Your task to perform on an android device: turn off wifi Image 0: 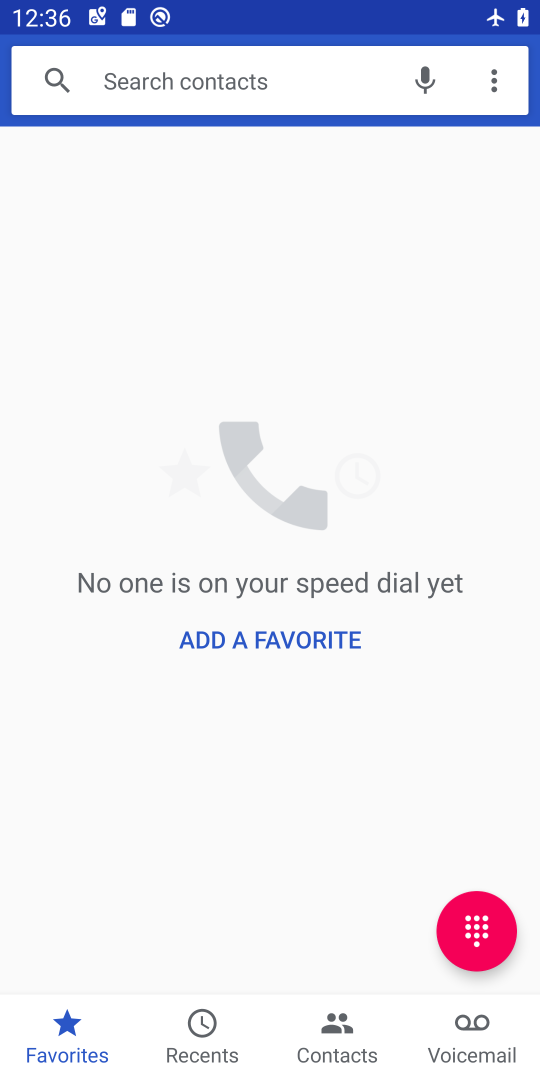
Step 0: press home button
Your task to perform on an android device: turn off wifi Image 1: 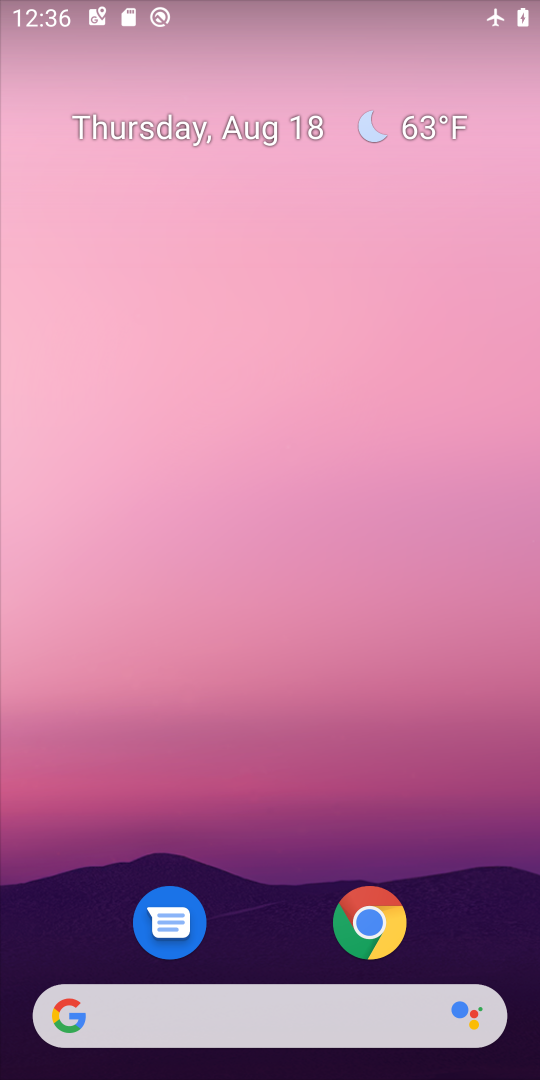
Step 1: drag from (281, 859) to (309, 238)
Your task to perform on an android device: turn off wifi Image 2: 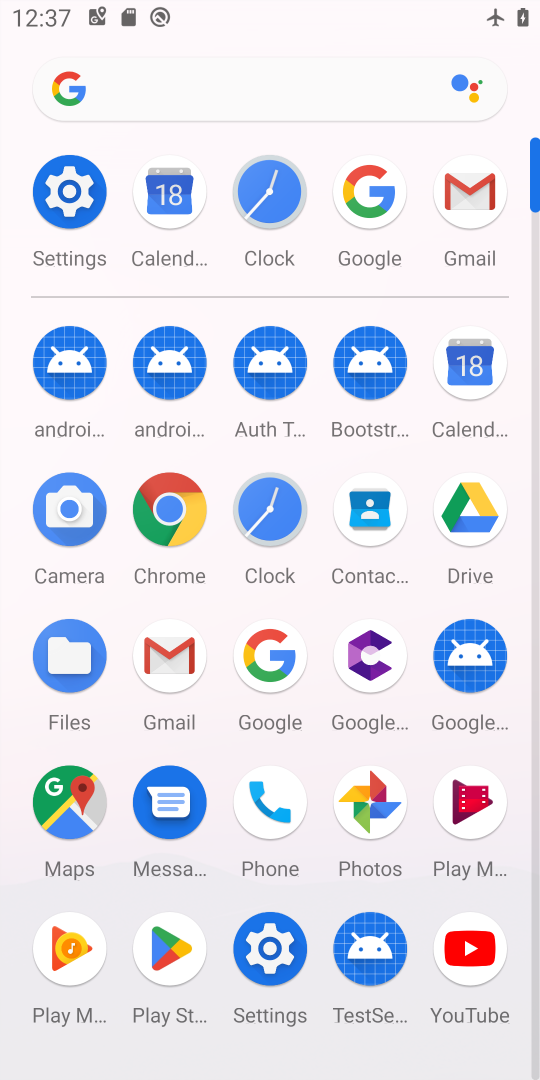
Step 2: click (65, 195)
Your task to perform on an android device: turn off wifi Image 3: 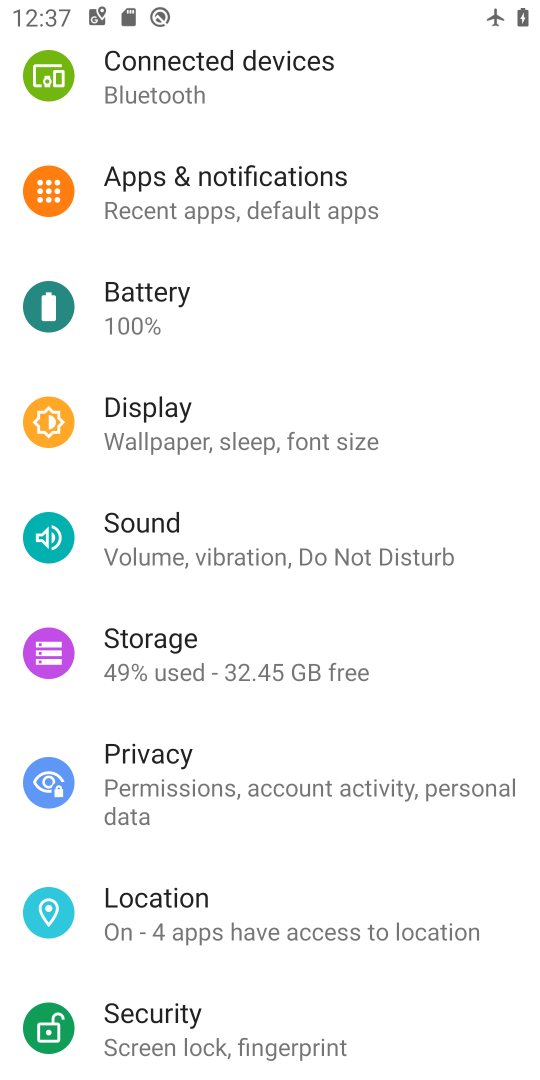
Step 3: drag from (310, 285) to (271, 713)
Your task to perform on an android device: turn off wifi Image 4: 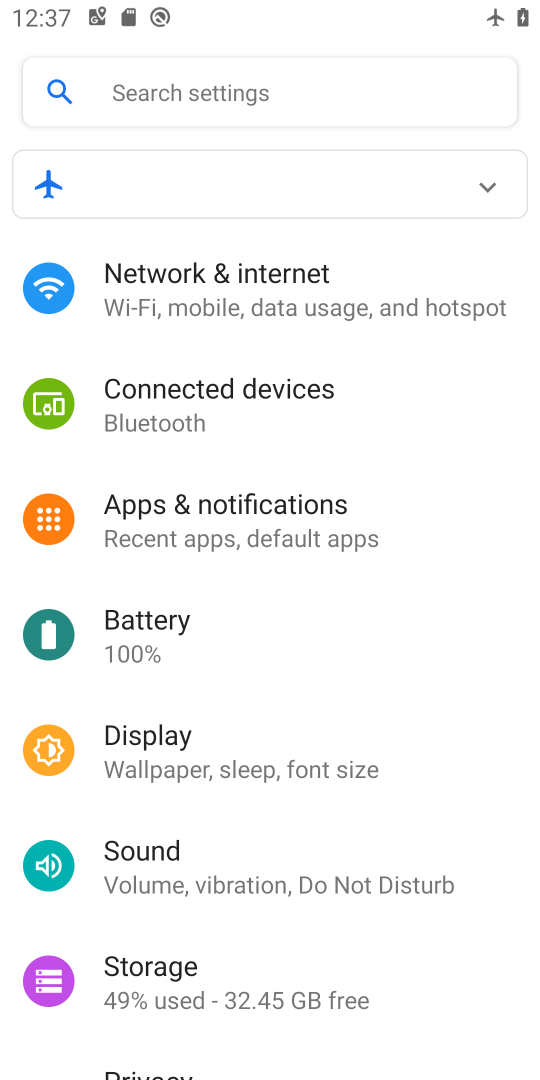
Step 4: click (252, 283)
Your task to perform on an android device: turn off wifi Image 5: 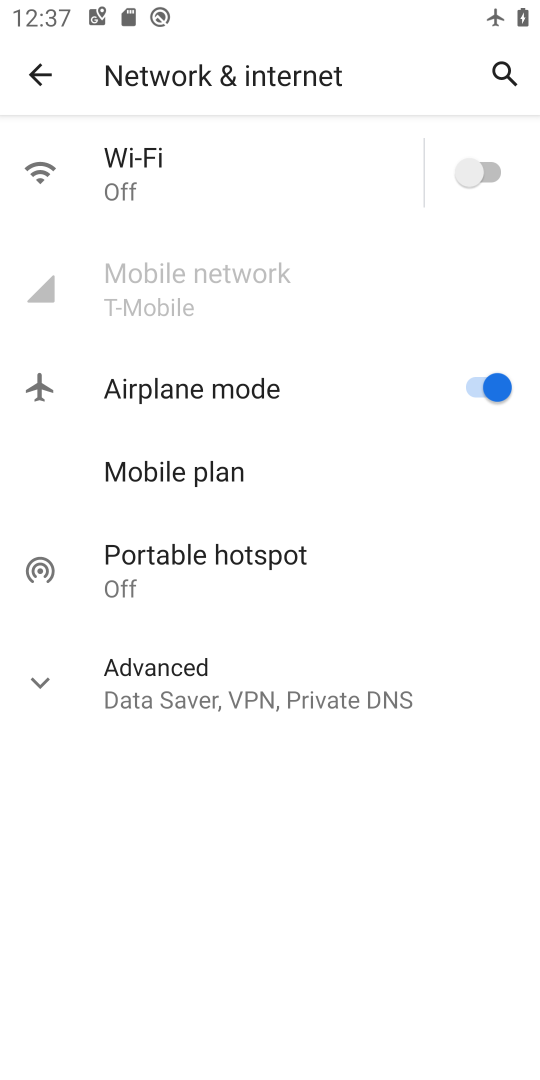
Step 5: task complete